Your task to perform on an android device: What's the news in Puerto Rico? Image 0: 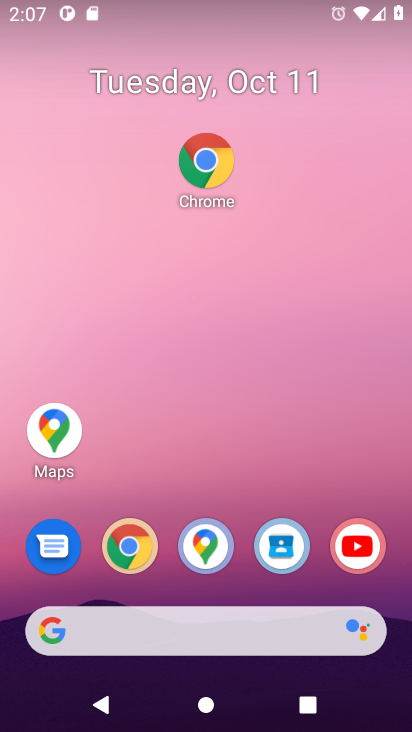
Step 0: click (135, 565)
Your task to perform on an android device: What's the news in Puerto Rico? Image 1: 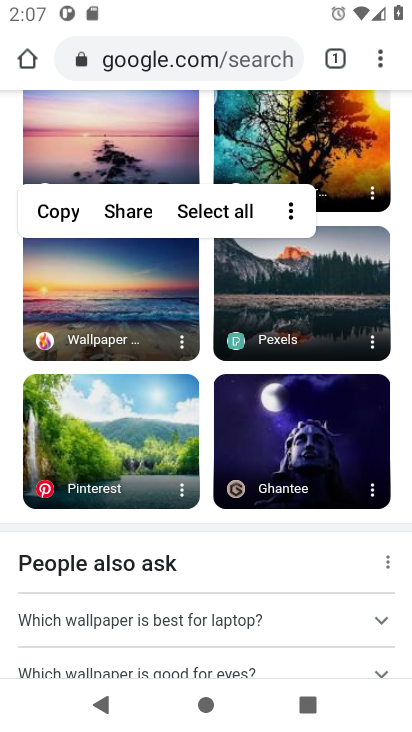
Step 1: click (230, 66)
Your task to perform on an android device: What's the news in Puerto Rico? Image 2: 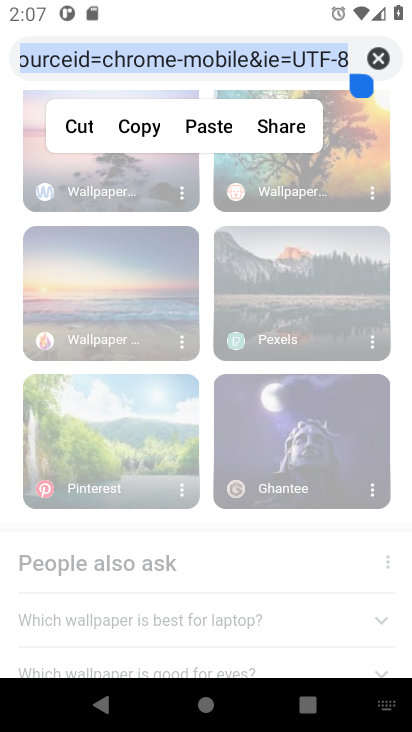
Step 2: type "news in Puerto Rico"
Your task to perform on an android device: What's the news in Puerto Rico? Image 3: 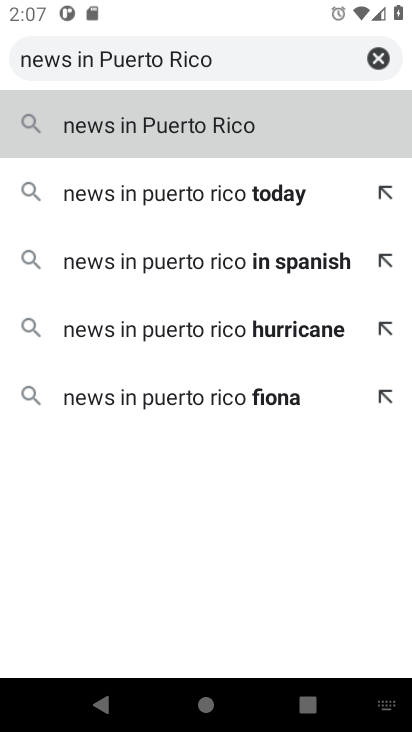
Step 3: press enter
Your task to perform on an android device: What's the news in Puerto Rico? Image 4: 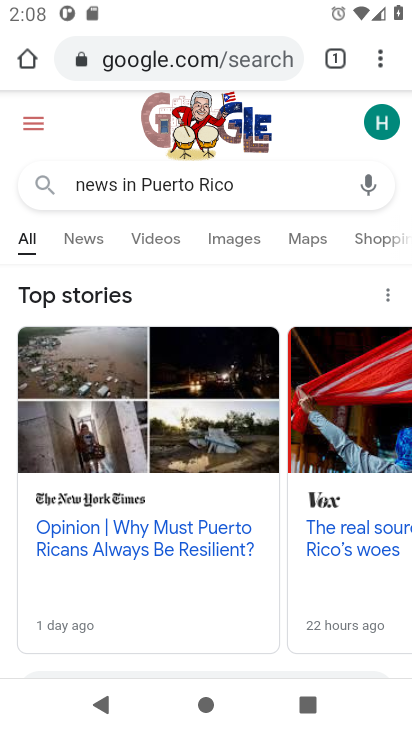
Step 4: click (308, 554)
Your task to perform on an android device: What's the news in Puerto Rico? Image 5: 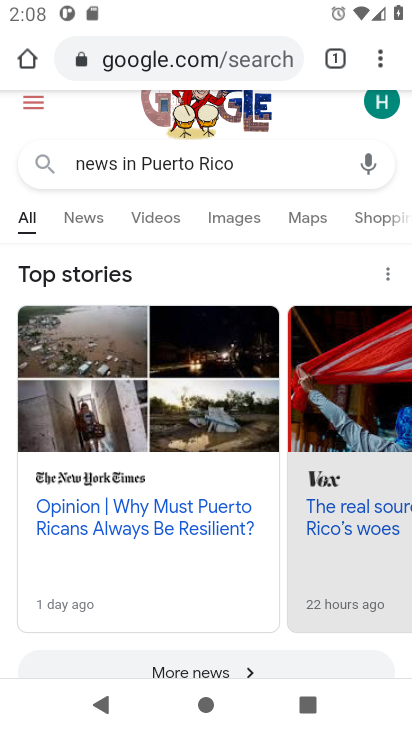
Step 5: click (91, 215)
Your task to perform on an android device: What's the news in Puerto Rico? Image 6: 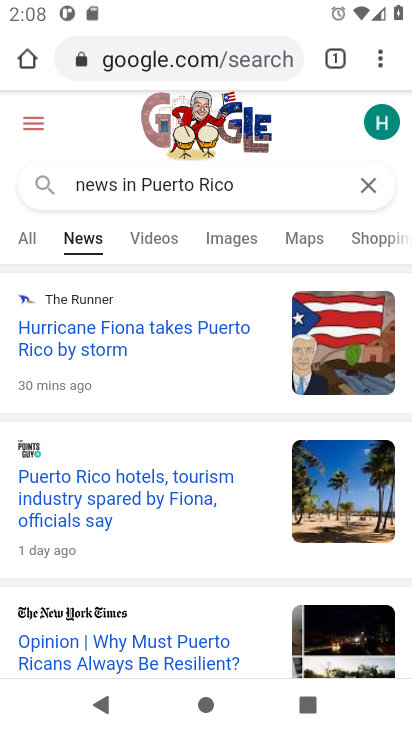
Step 6: task complete